Your task to perform on an android device: Open the Play Movies app and select the watchlist tab. Image 0: 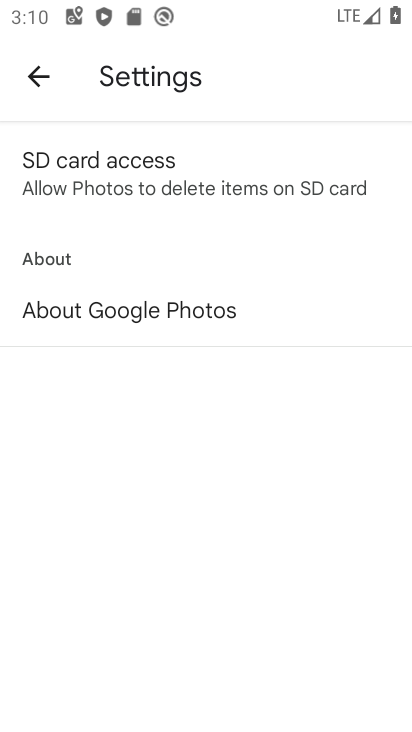
Step 0: press home button
Your task to perform on an android device: Open the Play Movies app and select the watchlist tab. Image 1: 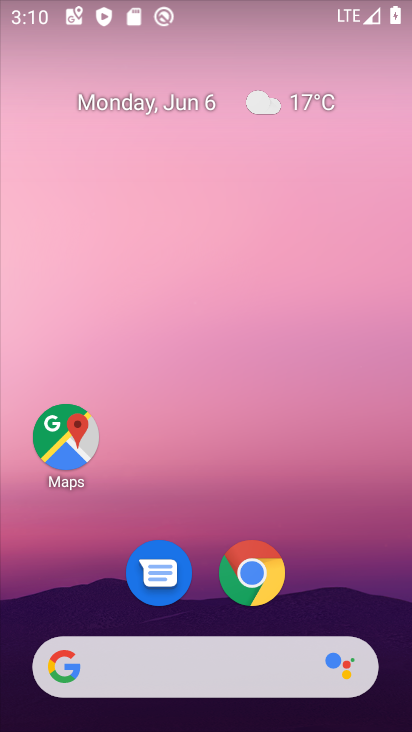
Step 1: drag from (376, 602) to (378, 219)
Your task to perform on an android device: Open the Play Movies app and select the watchlist tab. Image 2: 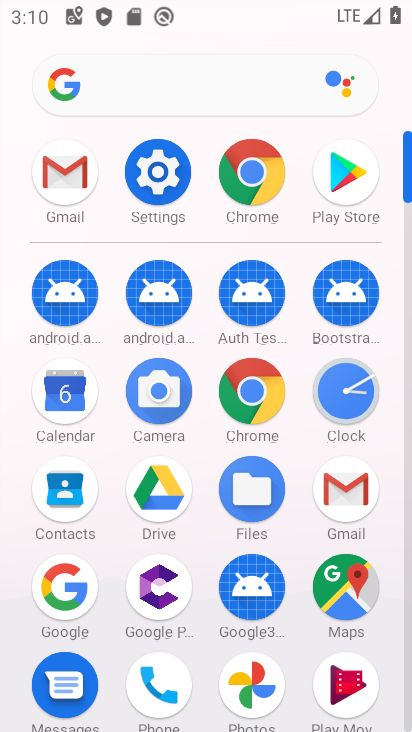
Step 2: click (347, 676)
Your task to perform on an android device: Open the Play Movies app and select the watchlist tab. Image 3: 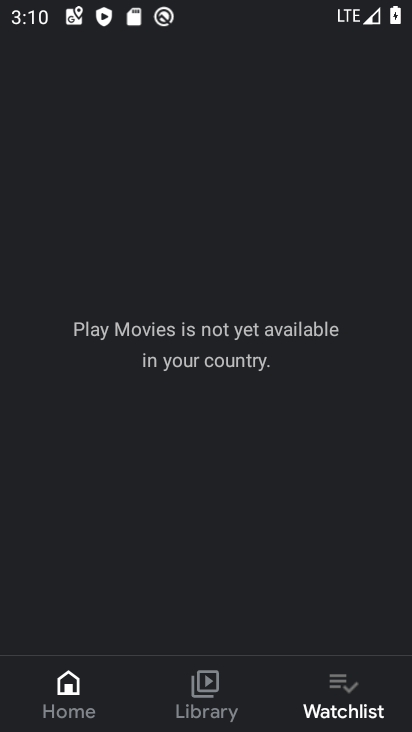
Step 3: task complete